Your task to perform on an android device: delete browsing data in the chrome app Image 0: 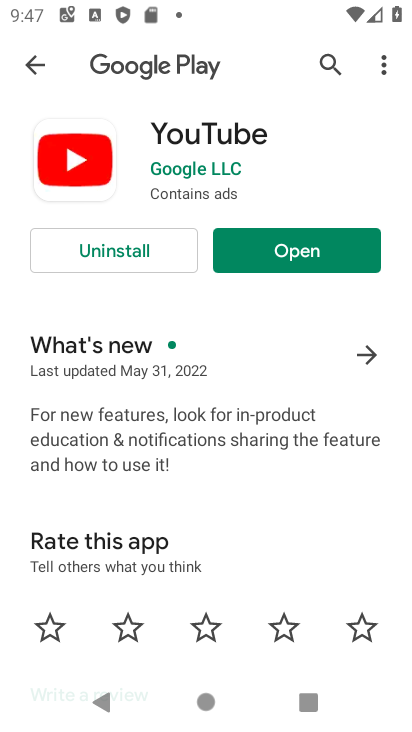
Step 0: press home button
Your task to perform on an android device: delete browsing data in the chrome app Image 1: 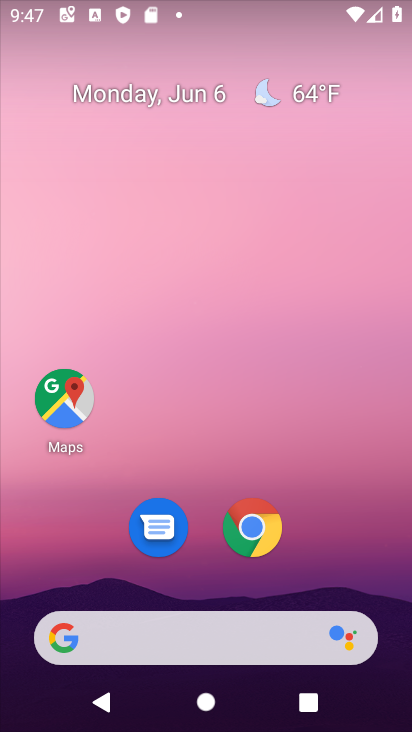
Step 1: drag from (203, 611) to (330, 287)
Your task to perform on an android device: delete browsing data in the chrome app Image 2: 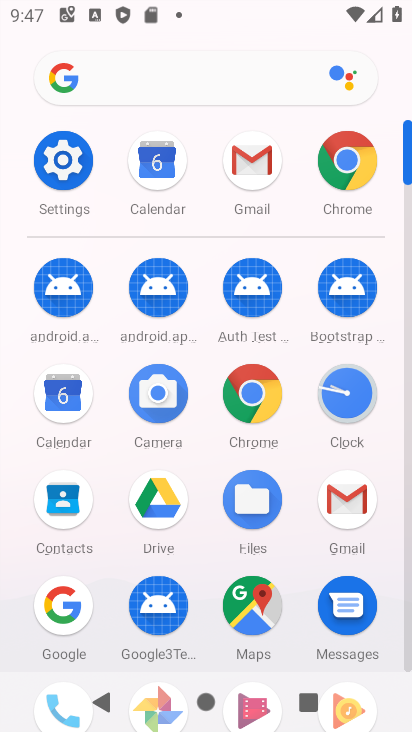
Step 2: click (351, 197)
Your task to perform on an android device: delete browsing data in the chrome app Image 3: 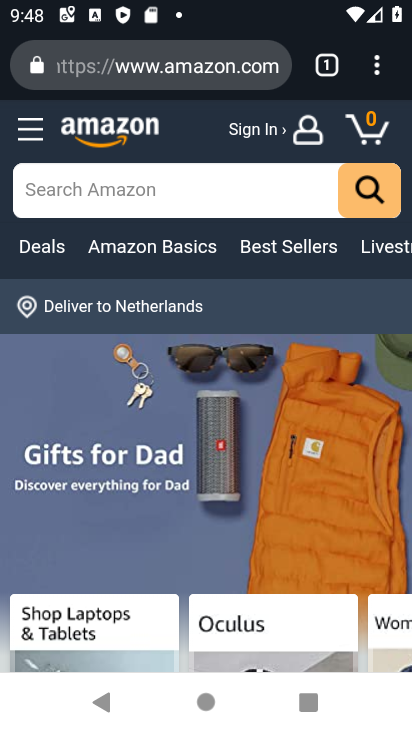
Step 3: click (382, 72)
Your task to perform on an android device: delete browsing data in the chrome app Image 4: 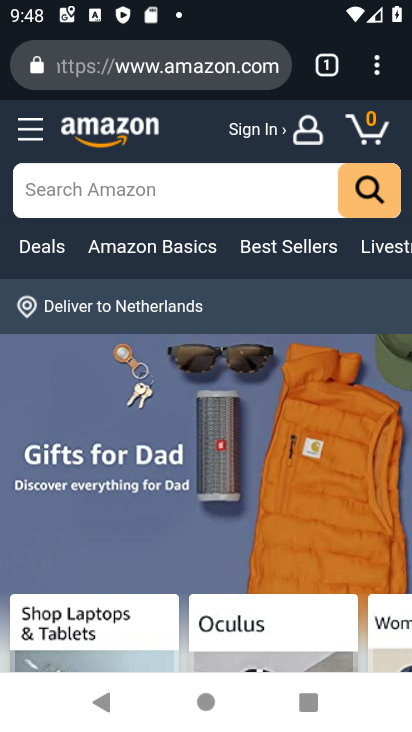
Step 4: click (376, 71)
Your task to perform on an android device: delete browsing data in the chrome app Image 5: 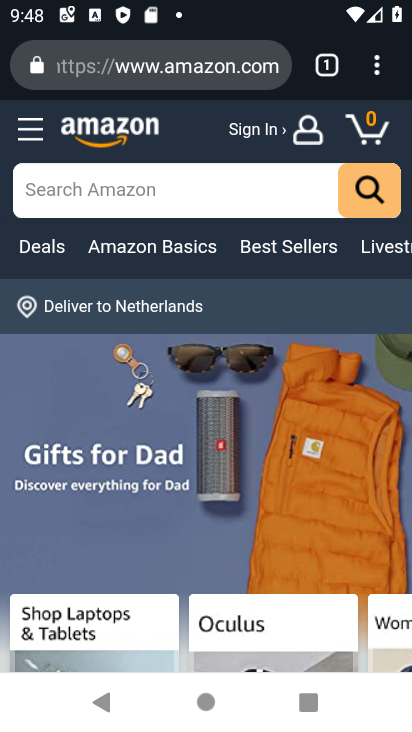
Step 5: click (377, 74)
Your task to perform on an android device: delete browsing data in the chrome app Image 6: 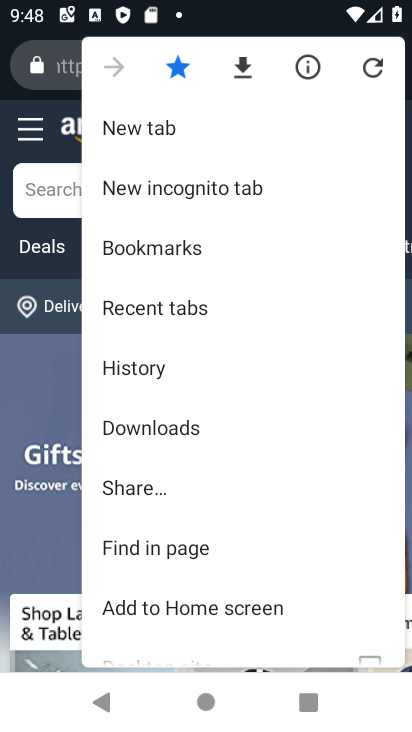
Step 6: click (172, 373)
Your task to perform on an android device: delete browsing data in the chrome app Image 7: 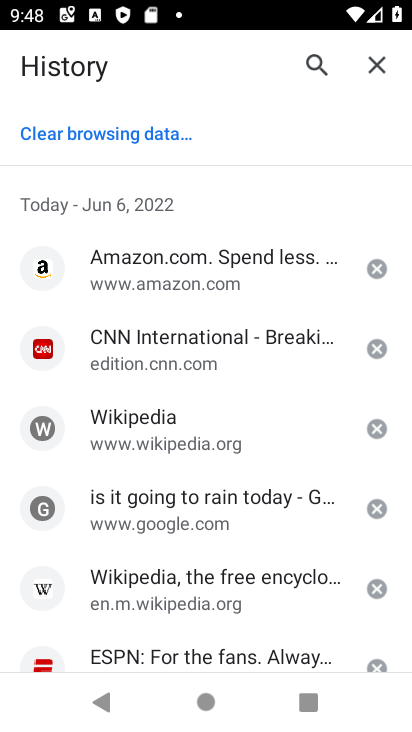
Step 7: click (129, 149)
Your task to perform on an android device: delete browsing data in the chrome app Image 8: 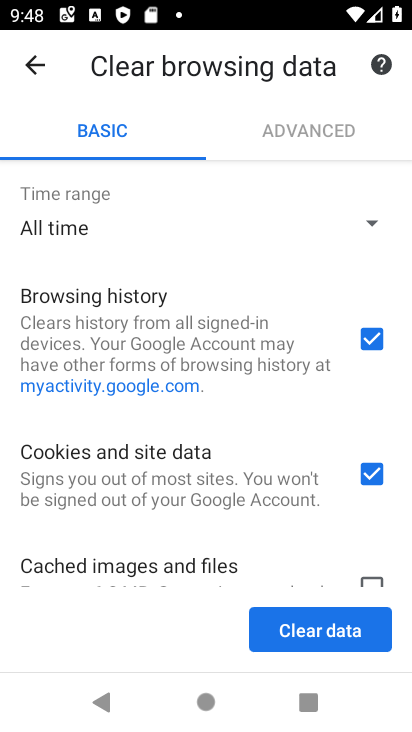
Step 8: click (326, 648)
Your task to perform on an android device: delete browsing data in the chrome app Image 9: 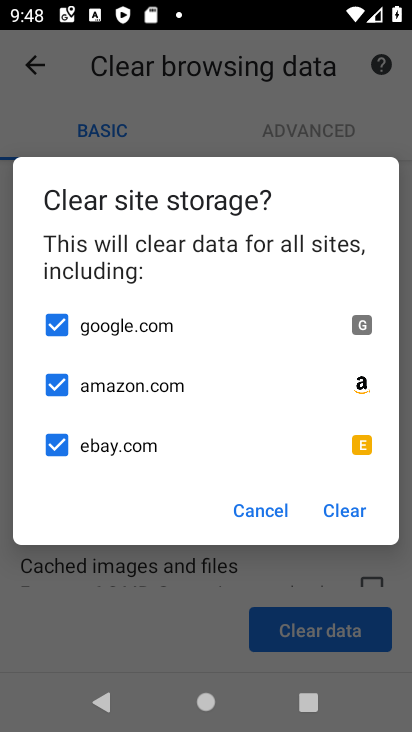
Step 9: click (352, 510)
Your task to perform on an android device: delete browsing data in the chrome app Image 10: 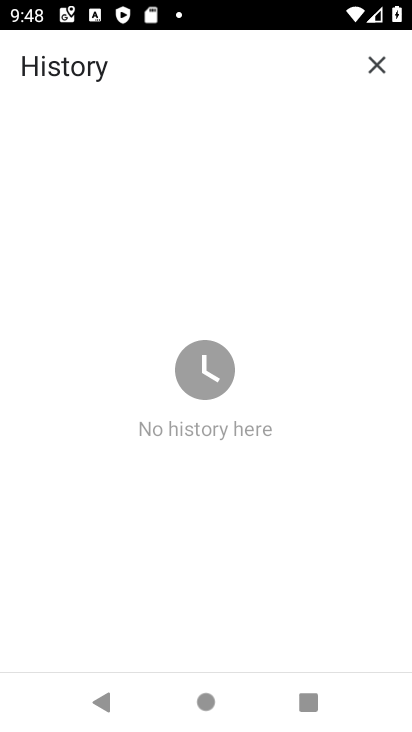
Step 10: task complete